Your task to perform on an android device: turn on notifications settings in the gmail app Image 0: 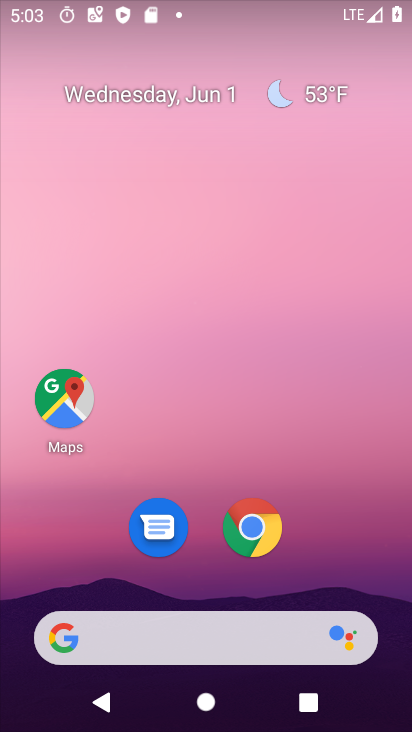
Step 0: drag from (319, 562) to (330, 62)
Your task to perform on an android device: turn on notifications settings in the gmail app Image 1: 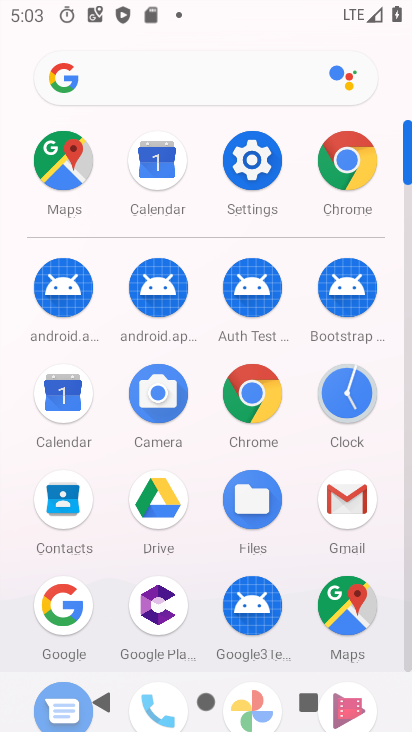
Step 1: click (344, 489)
Your task to perform on an android device: turn on notifications settings in the gmail app Image 2: 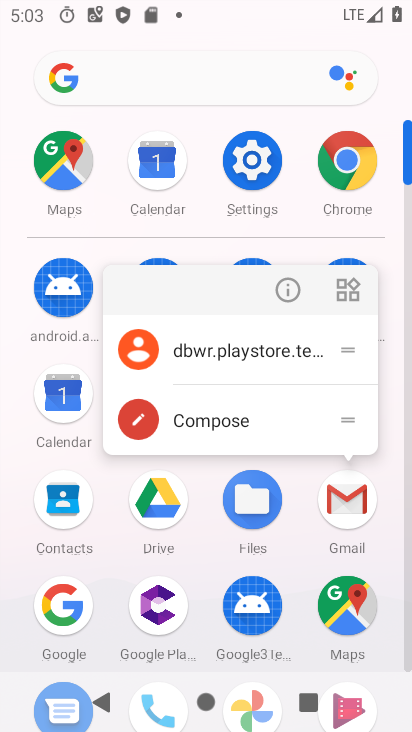
Step 2: click (291, 294)
Your task to perform on an android device: turn on notifications settings in the gmail app Image 3: 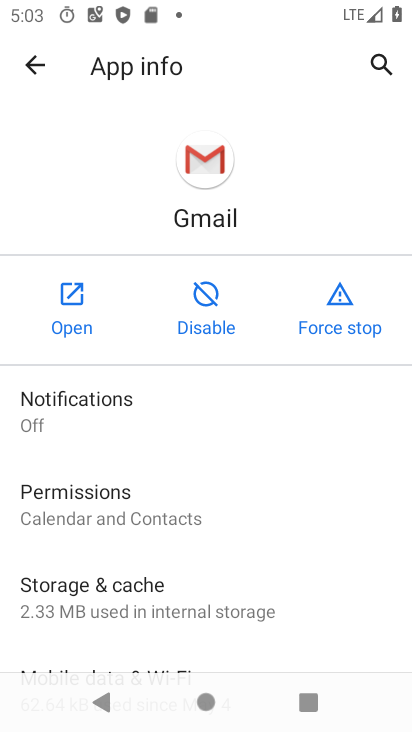
Step 3: click (59, 408)
Your task to perform on an android device: turn on notifications settings in the gmail app Image 4: 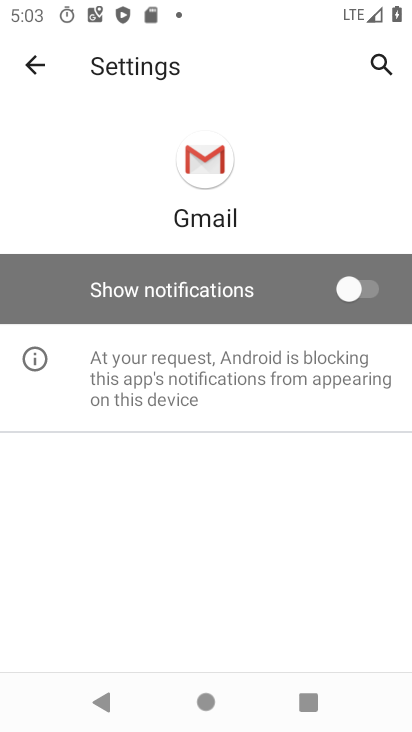
Step 4: click (359, 284)
Your task to perform on an android device: turn on notifications settings in the gmail app Image 5: 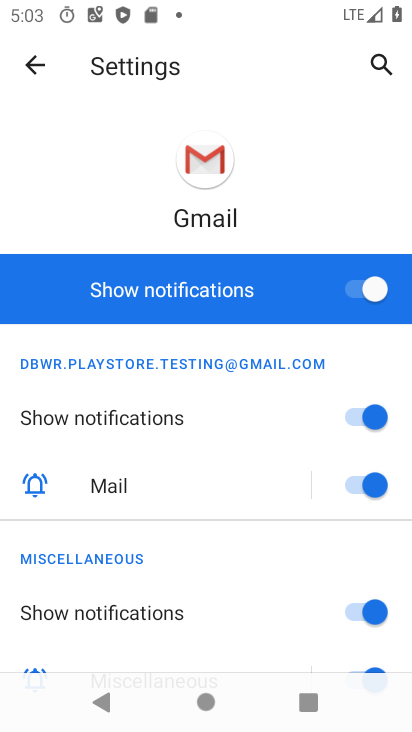
Step 5: task complete